Your task to perform on an android device: Go to Google Image 0: 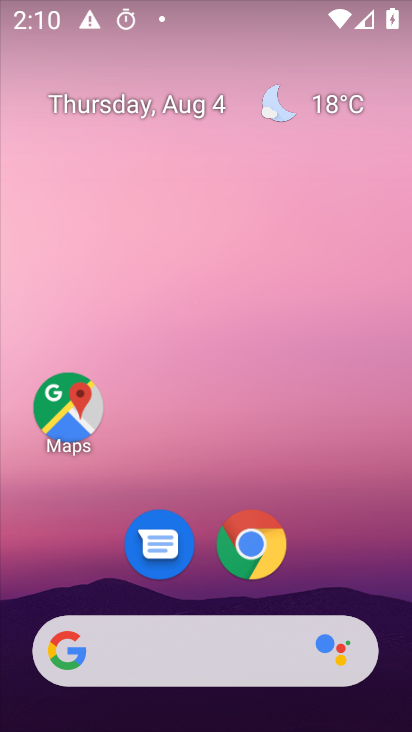
Step 0: drag from (353, 607) to (342, 95)
Your task to perform on an android device: Go to Google Image 1: 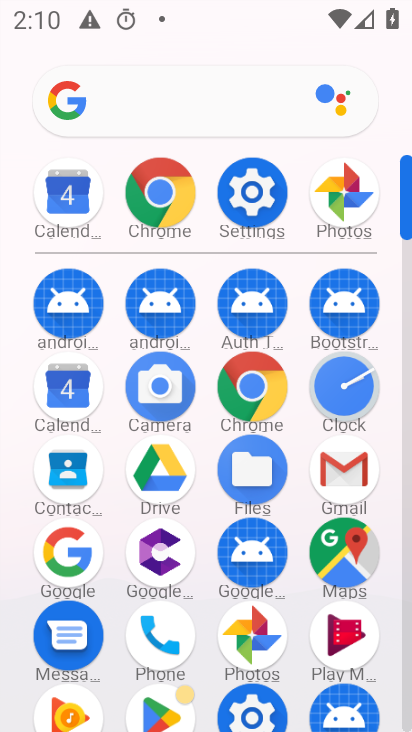
Step 1: click (74, 546)
Your task to perform on an android device: Go to Google Image 2: 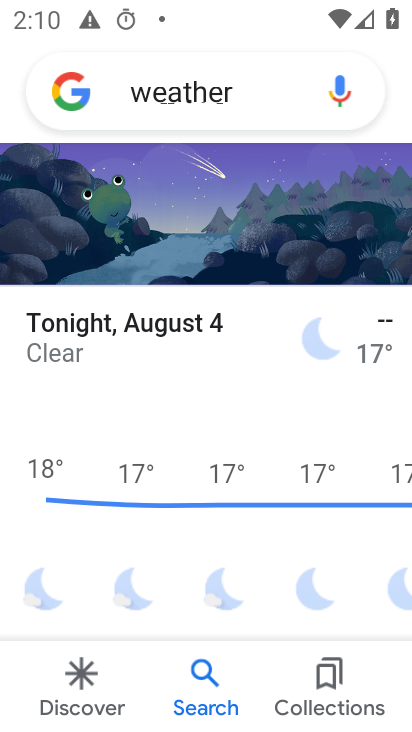
Step 2: task complete